Your task to perform on an android device: Open my contact list Image 0: 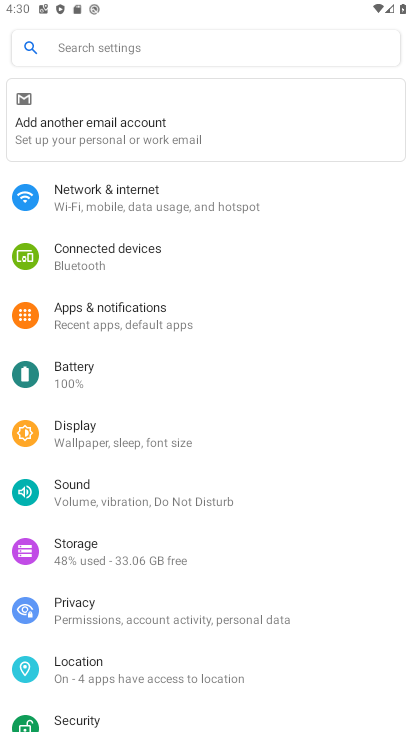
Step 0: press home button
Your task to perform on an android device: Open my contact list Image 1: 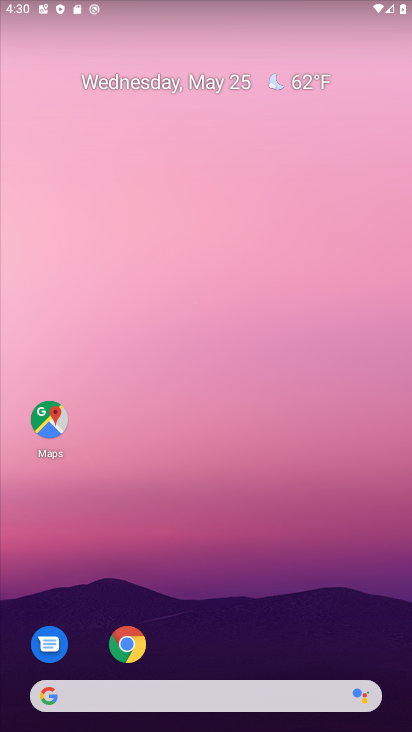
Step 1: drag from (198, 267) to (206, 199)
Your task to perform on an android device: Open my contact list Image 2: 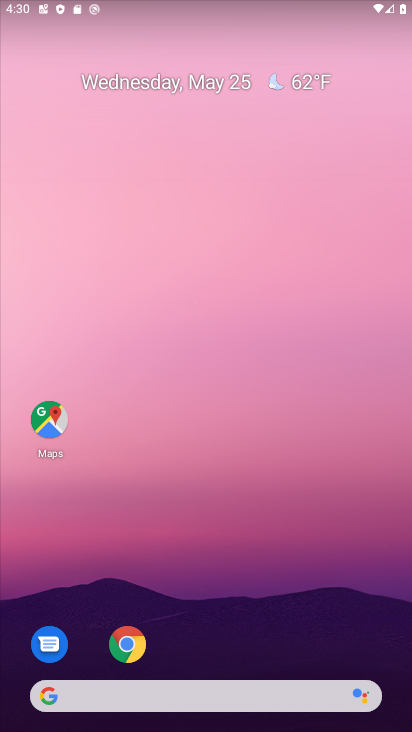
Step 2: drag from (208, 433) to (215, 76)
Your task to perform on an android device: Open my contact list Image 3: 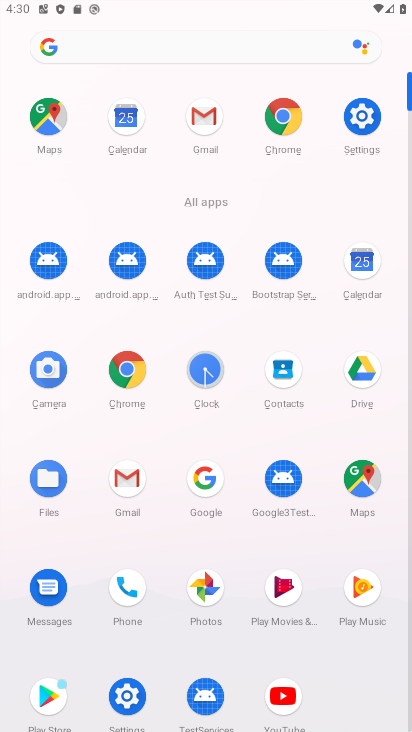
Step 3: click (278, 391)
Your task to perform on an android device: Open my contact list Image 4: 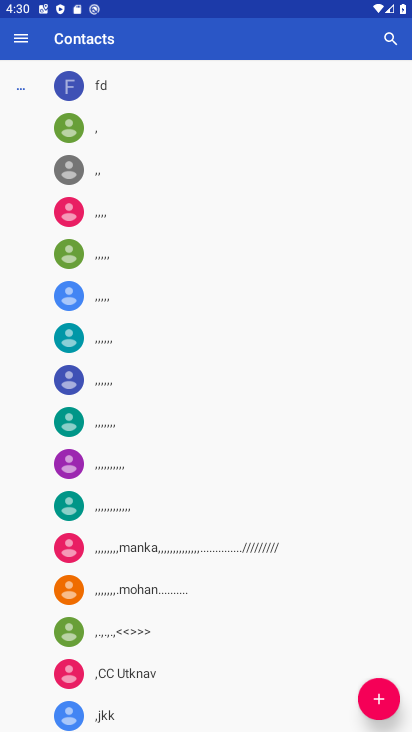
Step 4: task complete